Your task to perform on an android device: find snoozed emails in the gmail app Image 0: 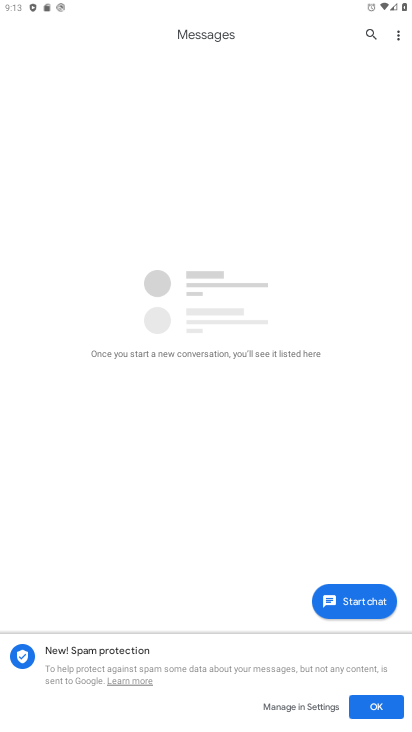
Step 0: press home button
Your task to perform on an android device: find snoozed emails in the gmail app Image 1: 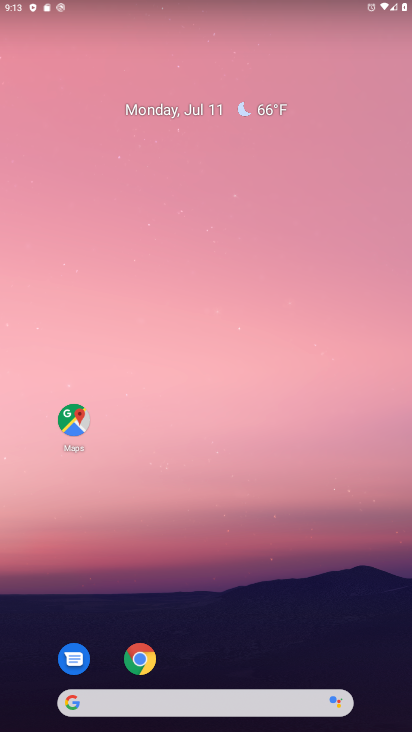
Step 1: drag from (359, 630) to (350, 104)
Your task to perform on an android device: find snoozed emails in the gmail app Image 2: 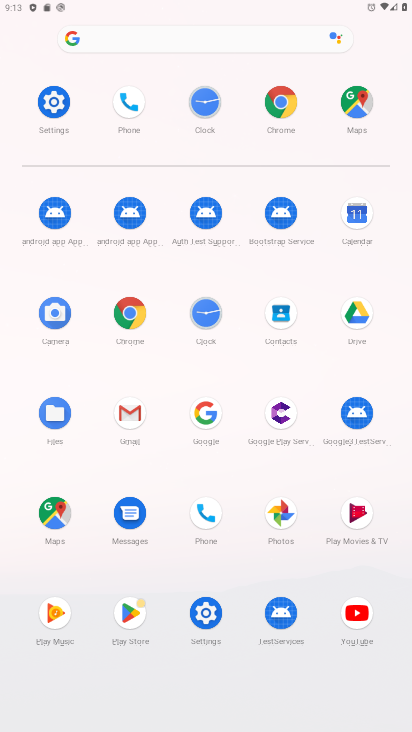
Step 2: click (132, 414)
Your task to perform on an android device: find snoozed emails in the gmail app Image 3: 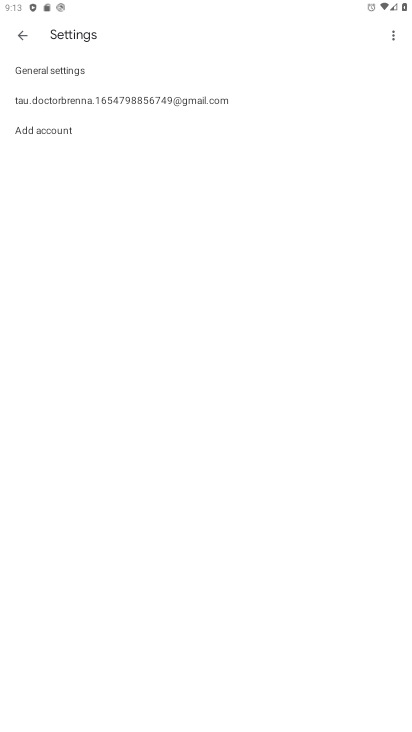
Step 3: press back button
Your task to perform on an android device: find snoozed emails in the gmail app Image 4: 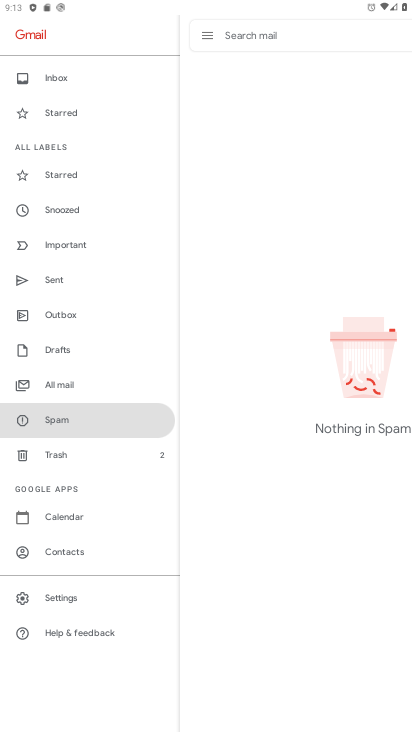
Step 4: click (87, 215)
Your task to perform on an android device: find snoozed emails in the gmail app Image 5: 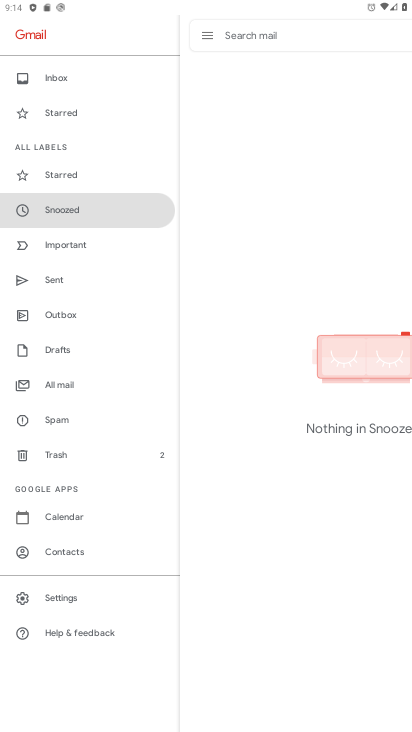
Step 5: task complete